Your task to perform on an android device: toggle improve location accuracy Image 0: 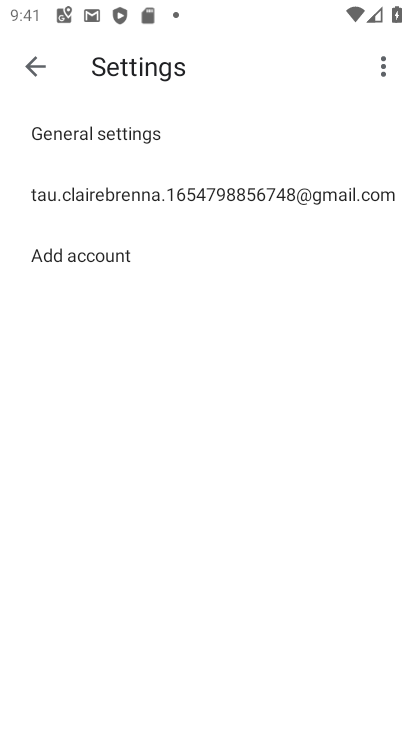
Step 0: press home button
Your task to perform on an android device: toggle improve location accuracy Image 1: 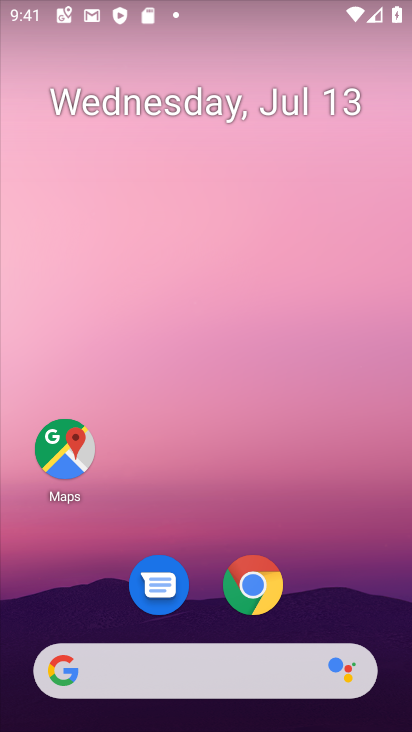
Step 1: drag from (324, 566) to (342, 10)
Your task to perform on an android device: toggle improve location accuracy Image 2: 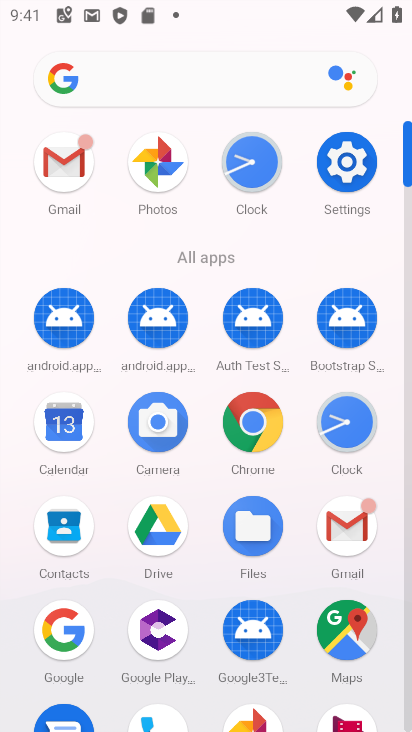
Step 2: click (350, 162)
Your task to perform on an android device: toggle improve location accuracy Image 3: 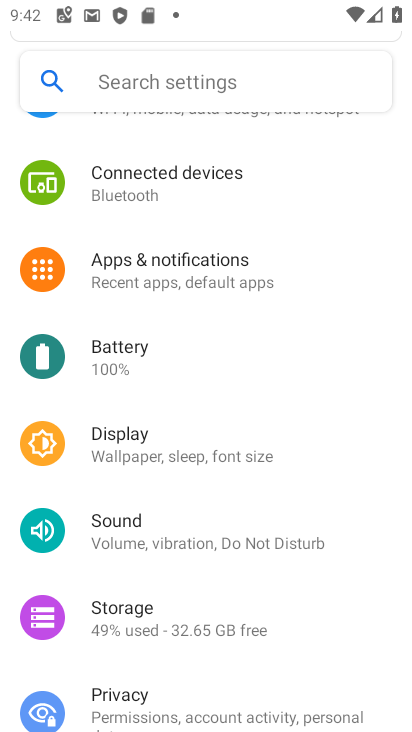
Step 3: drag from (217, 284) to (223, 573)
Your task to perform on an android device: toggle improve location accuracy Image 4: 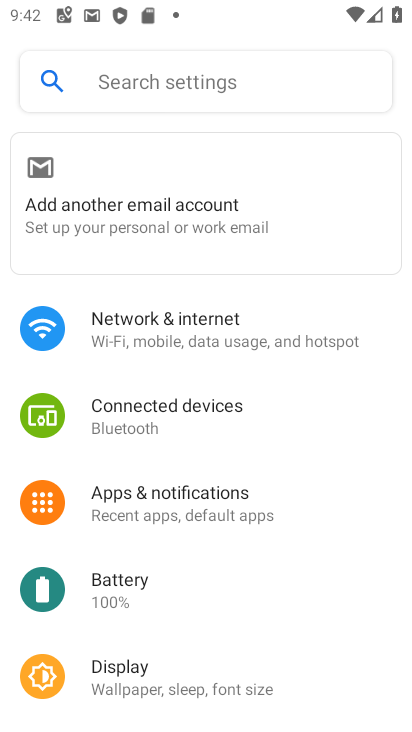
Step 4: drag from (218, 603) to (227, 16)
Your task to perform on an android device: toggle improve location accuracy Image 5: 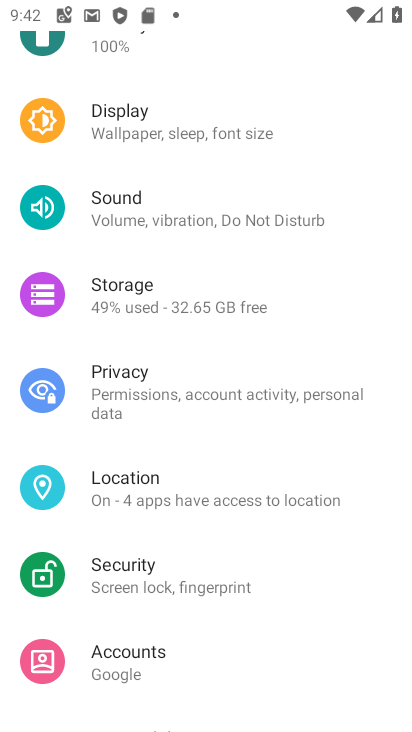
Step 5: click (208, 481)
Your task to perform on an android device: toggle improve location accuracy Image 6: 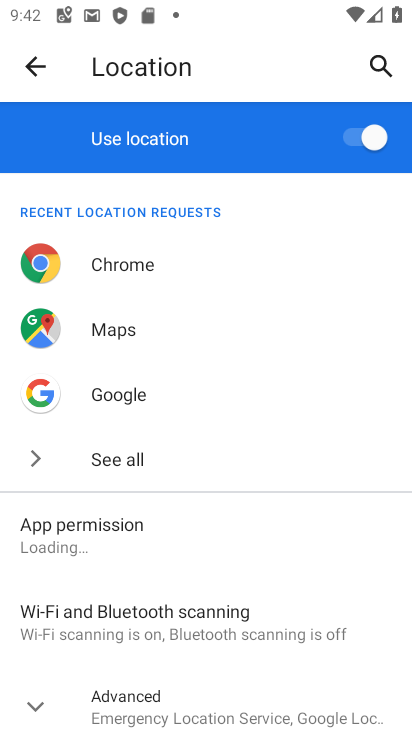
Step 6: drag from (219, 550) to (249, 229)
Your task to perform on an android device: toggle improve location accuracy Image 7: 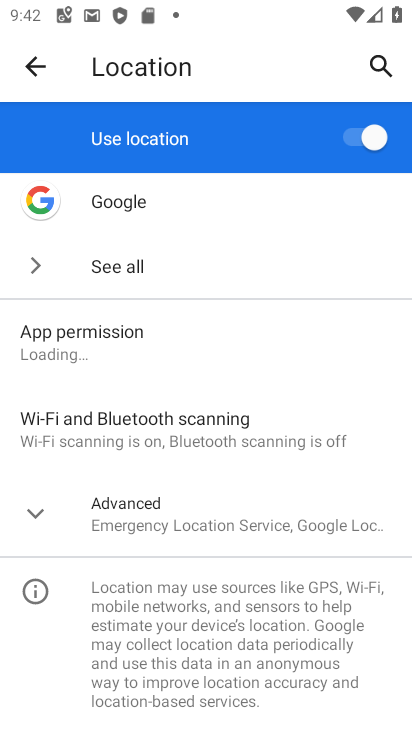
Step 7: click (35, 508)
Your task to perform on an android device: toggle improve location accuracy Image 8: 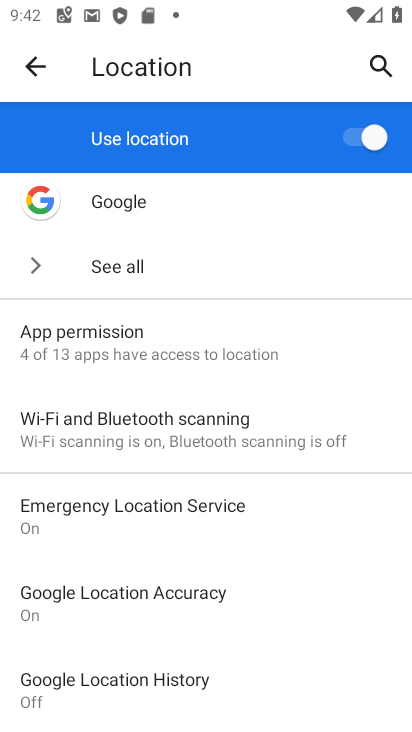
Step 8: click (185, 602)
Your task to perform on an android device: toggle improve location accuracy Image 9: 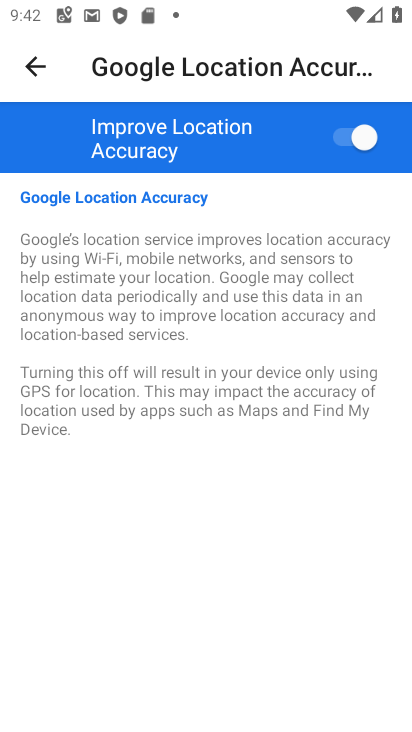
Step 9: click (349, 132)
Your task to perform on an android device: toggle improve location accuracy Image 10: 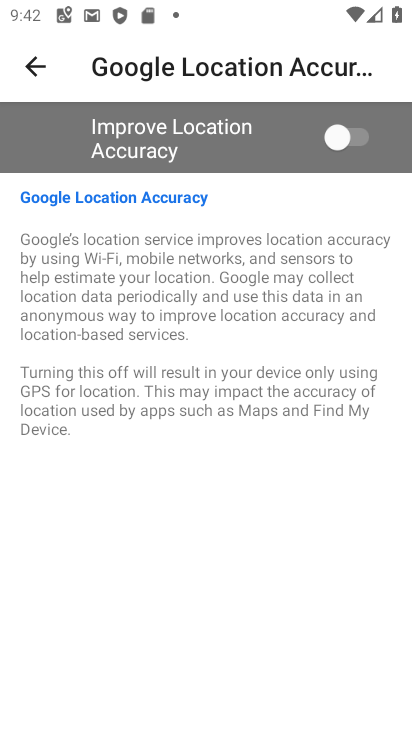
Step 10: task complete